Your task to perform on an android device: manage bookmarks in the chrome app Image 0: 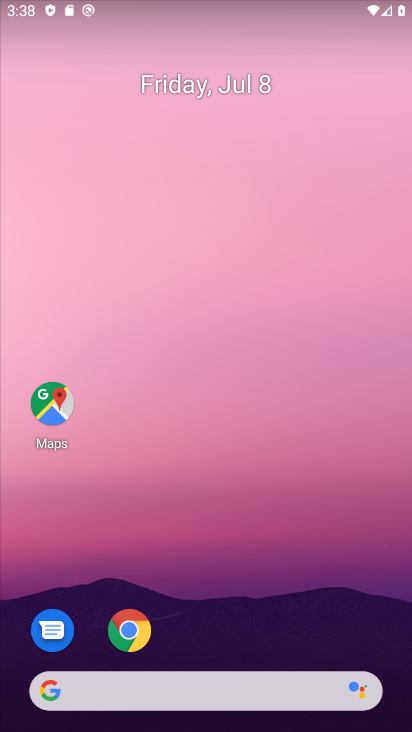
Step 0: click (49, 403)
Your task to perform on an android device: manage bookmarks in the chrome app Image 1: 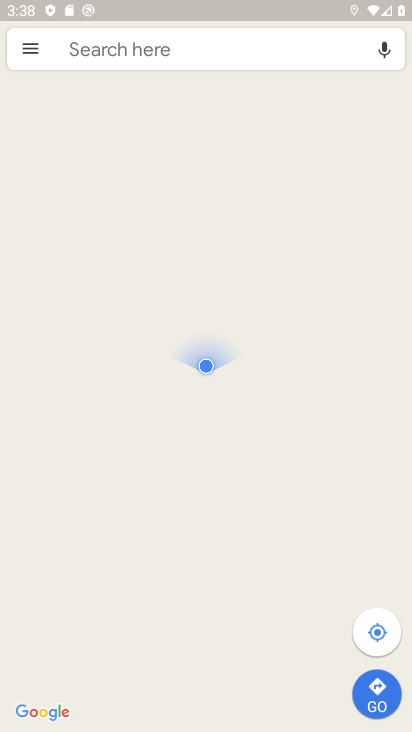
Step 1: press home button
Your task to perform on an android device: manage bookmarks in the chrome app Image 2: 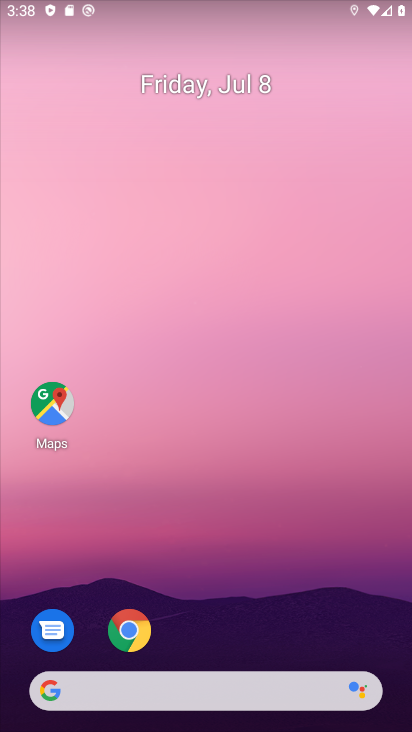
Step 2: click (132, 624)
Your task to perform on an android device: manage bookmarks in the chrome app Image 3: 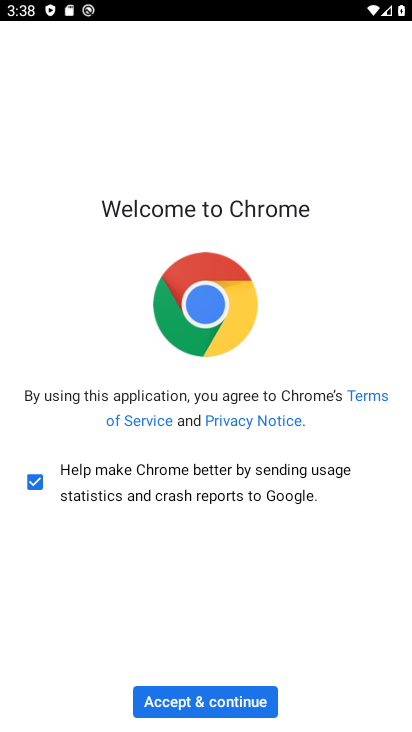
Step 3: click (178, 693)
Your task to perform on an android device: manage bookmarks in the chrome app Image 4: 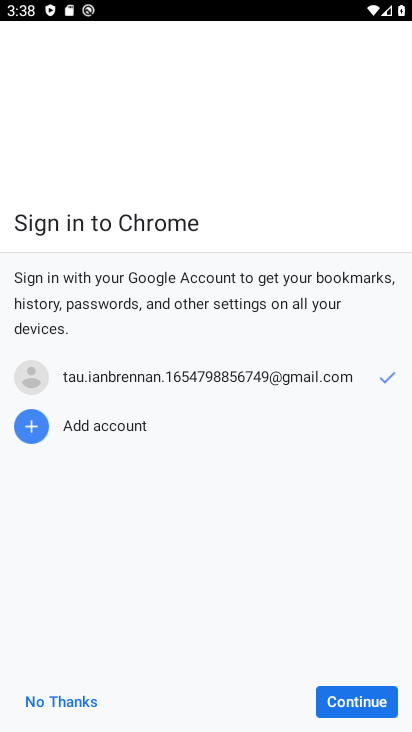
Step 4: click (331, 695)
Your task to perform on an android device: manage bookmarks in the chrome app Image 5: 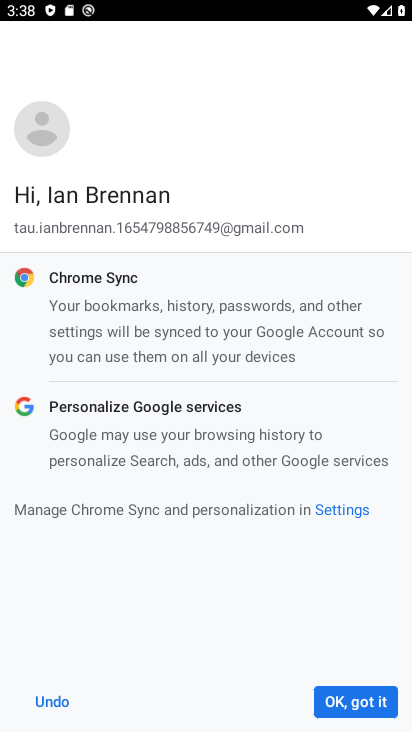
Step 5: click (341, 709)
Your task to perform on an android device: manage bookmarks in the chrome app Image 6: 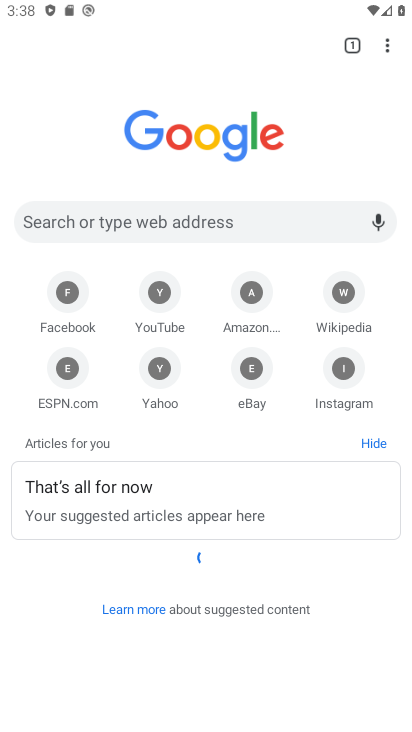
Step 6: click (392, 41)
Your task to perform on an android device: manage bookmarks in the chrome app Image 7: 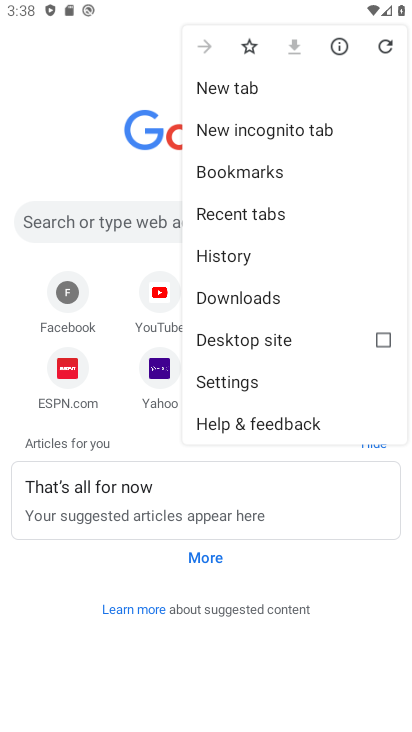
Step 7: click (263, 159)
Your task to perform on an android device: manage bookmarks in the chrome app Image 8: 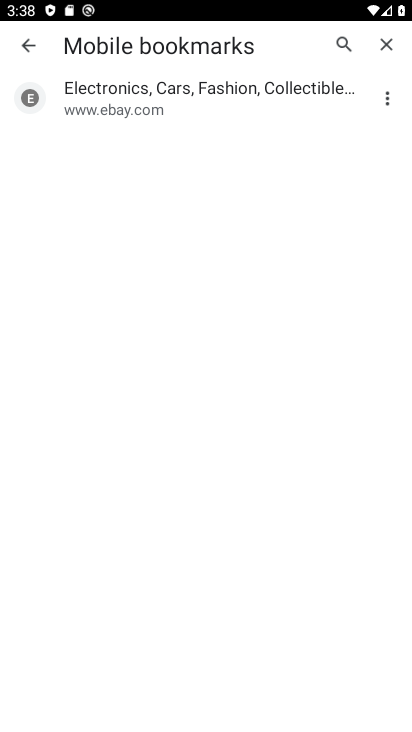
Step 8: task complete